Your task to perform on an android device: Go to Google Image 0: 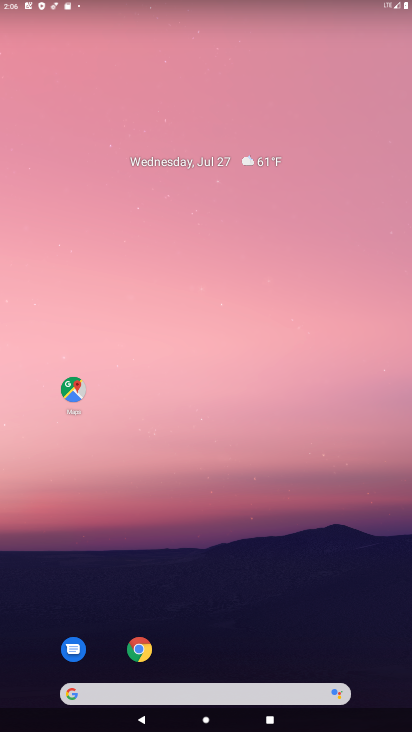
Step 0: click (151, 689)
Your task to perform on an android device: Go to Google Image 1: 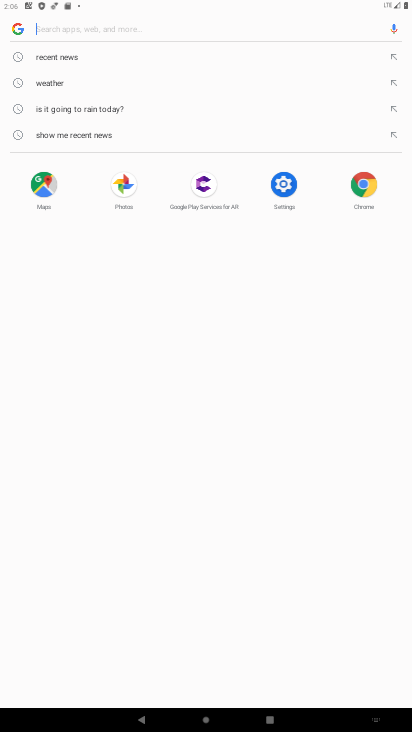
Step 1: task complete